Your task to perform on an android device: open the mobile data screen to see how much data has been used Image 0: 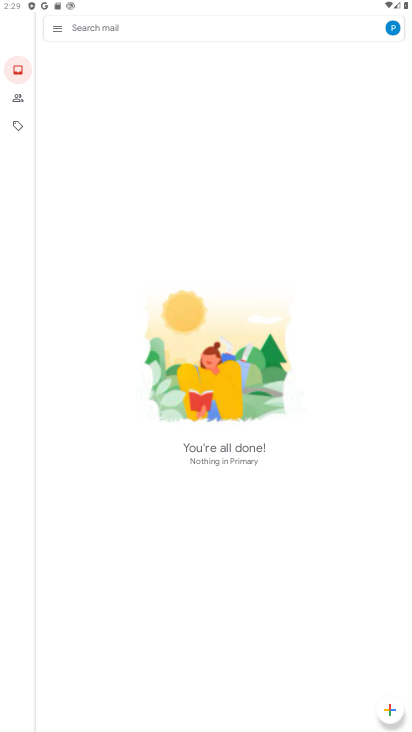
Step 0: press home button
Your task to perform on an android device: open the mobile data screen to see how much data has been used Image 1: 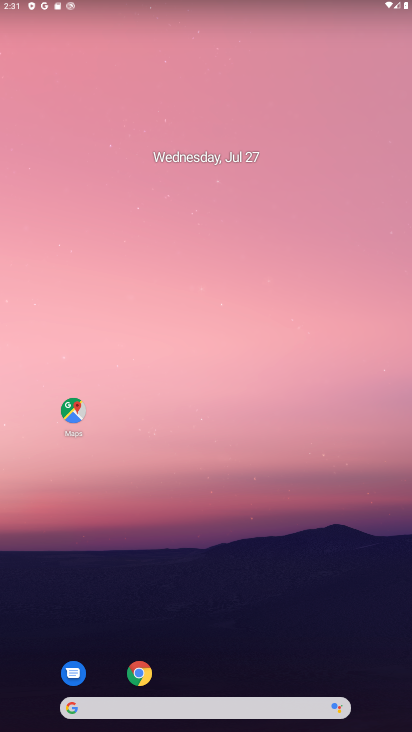
Step 1: drag from (119, 707) to (133, 228)
Your task to perform on an android device: open the mobile data screen to see how much data has been used Image 2: 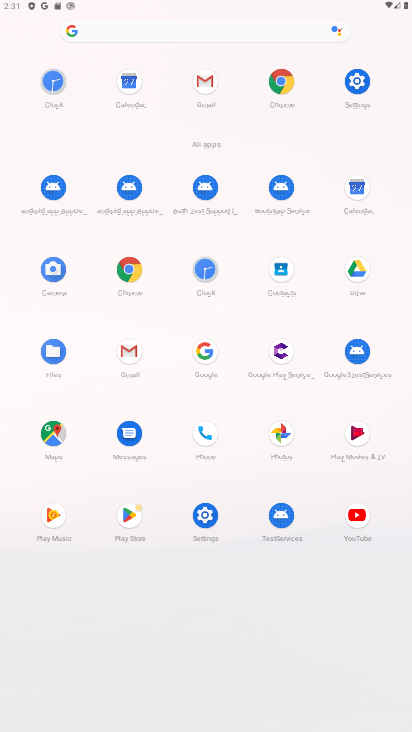
Step 2: click (353, 81)
Your task to perform on an android device: open the mobile data screen to see how much data has been used Image 3: 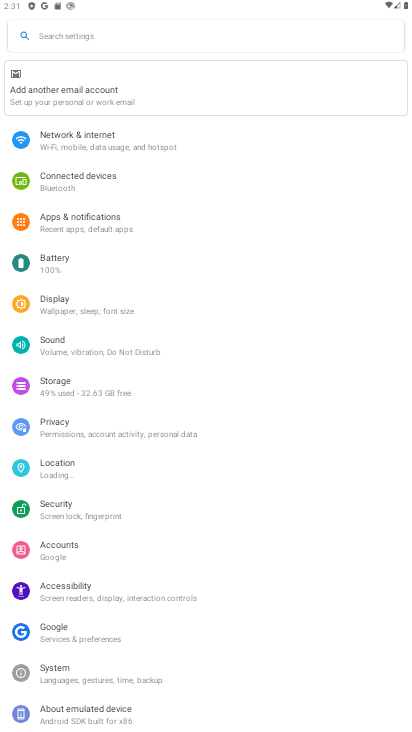
Step 3: click (112, 137)
Your task to perform on an android device: open the mobile data screen to see how much data has been used Image 4: 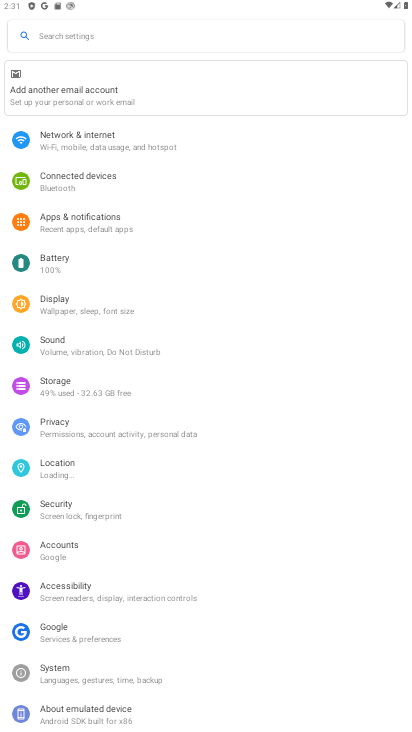
Step 4: click (112, 137)
Your task to perform on an android device: open the mobile data screen to see how much data has been used Image 5: 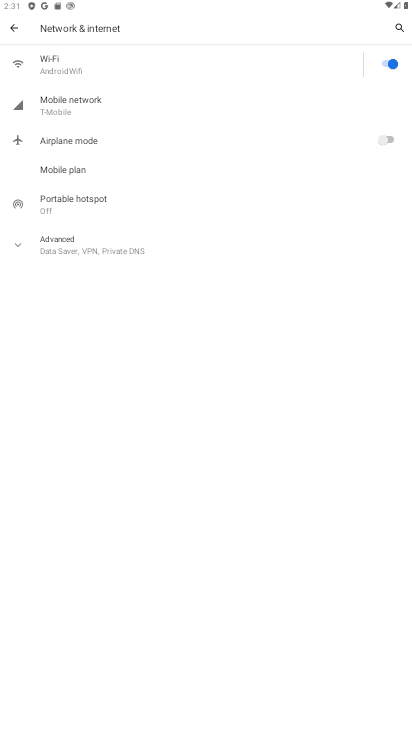
Step 5: click (91, 106)
Your task to perform on an android device: open the mobile data screen to see how much data has been used Image 6: 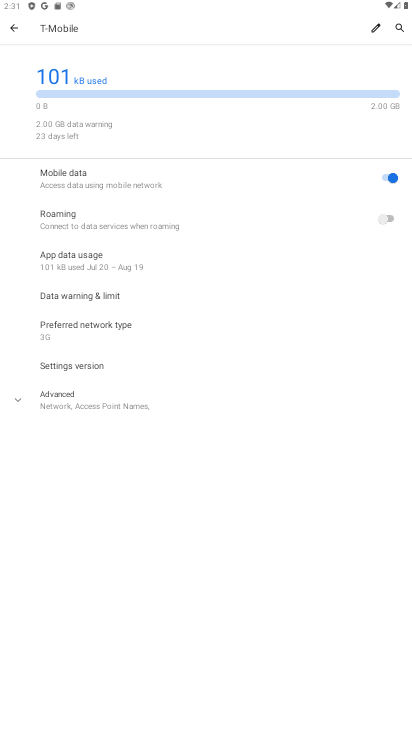
Step 6: click (131, 255)
Your task to perform on an android device: open the mobile data screen to see how much data has been used Image 7: 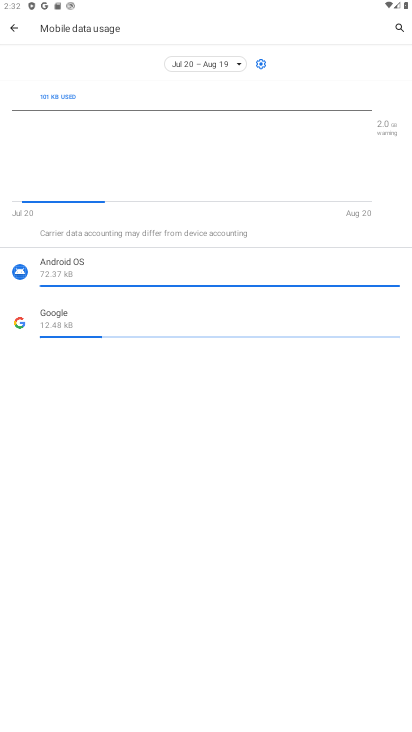
Step 7: task complete